Your task to perform on an android device: Open the web browser Image 0: 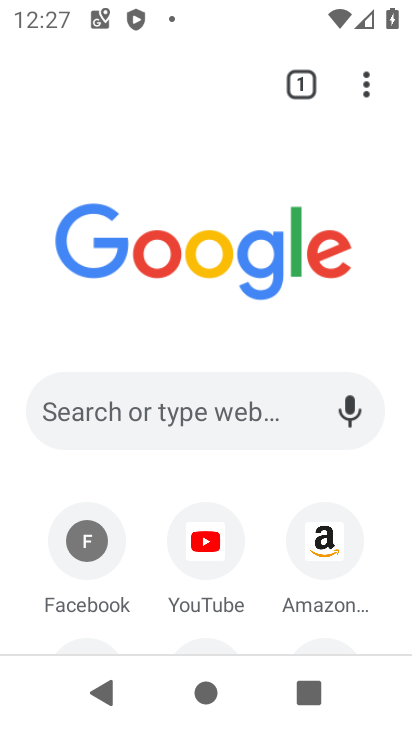
Step 0: task complete